Your task to perform on an android device: toggle airplane mode Image 0: 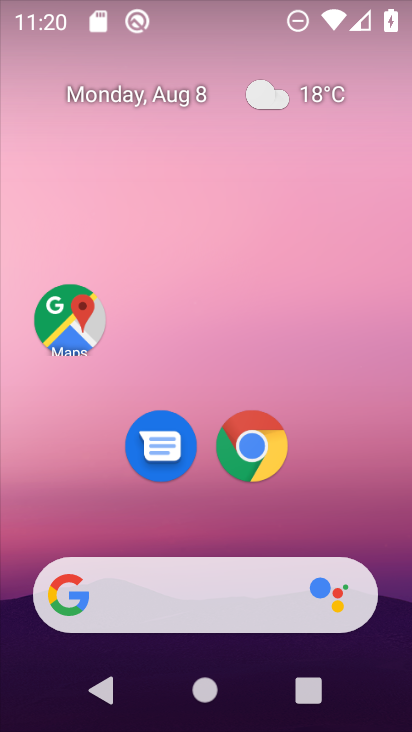
Step 0: drag from (393, 622) to (361, 168)
Your task to perform on an android device: toggle airplane mode Image 1: 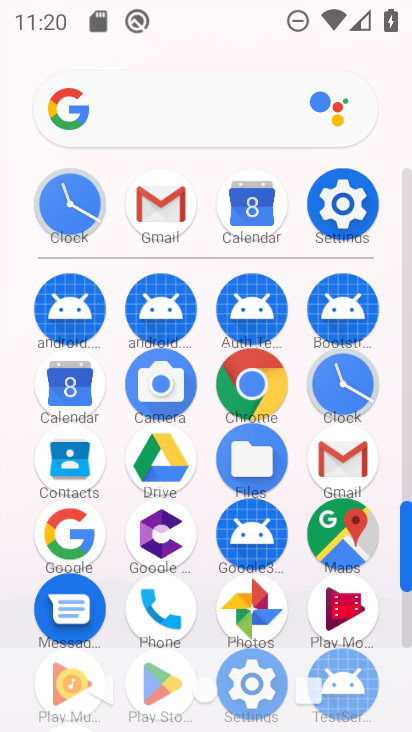
Step 1: click (409, 637)
Your task to perform on an android device: toggle airplane mode Image 2: 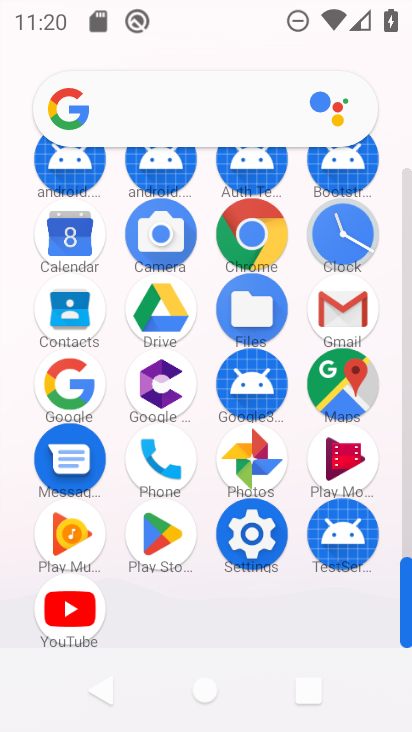
Step 2: click (250, 532)
Your task to perform on an android device: toggle airplane mode Image 3: 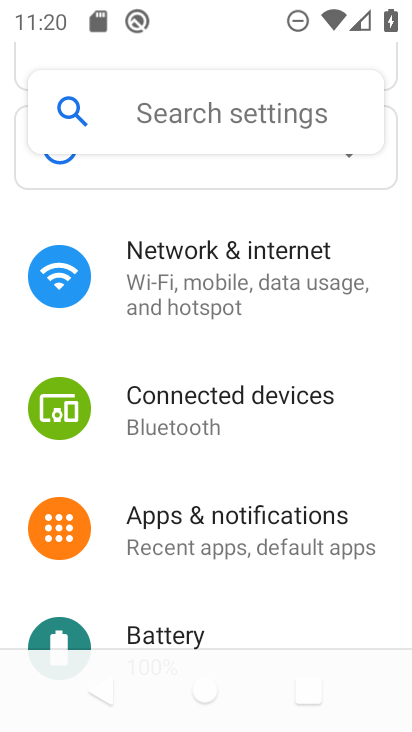
Step 3: click (190, 276)
Your task to perform on an android device: toggle airplane mode Image 4: 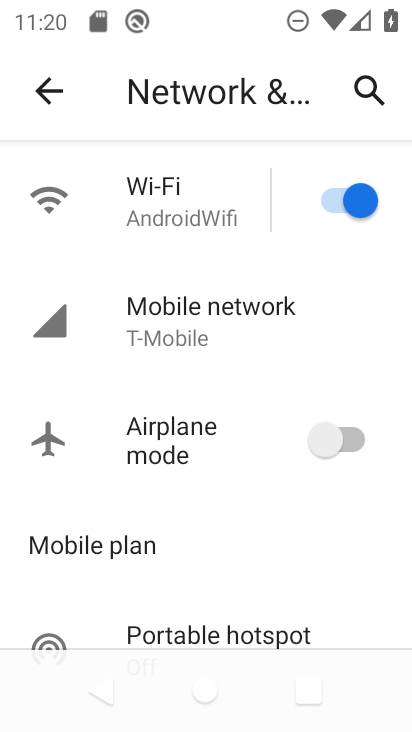
Step 4: click (349, 441)
Your task to perform on an android device: toggle airplane mode Image 5: 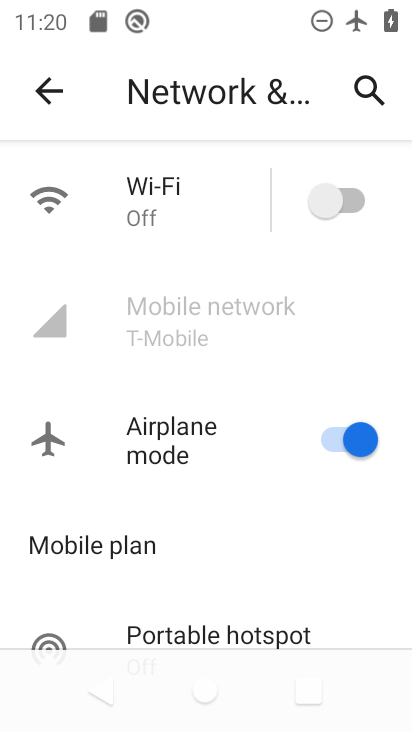
Step 5: task complete